Your task to perform on an android device: open a new tab in the chrome app Image 0: 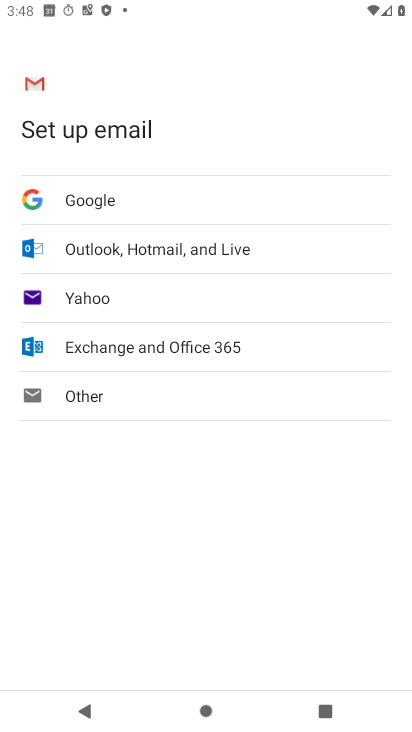
Step 0: press home button
Your task to perform on an android device: open a new tab in the chrome app Image 1: 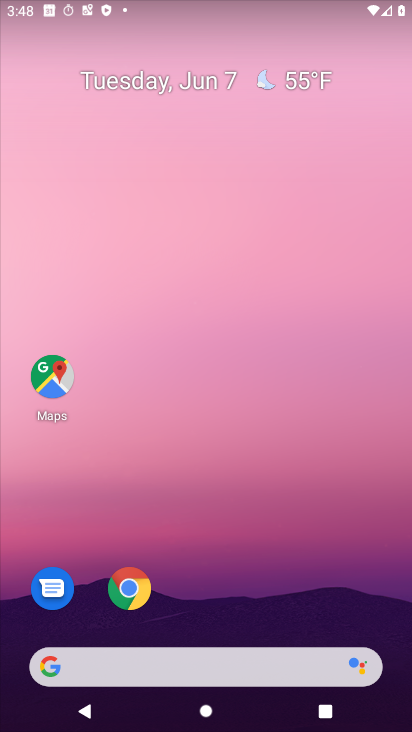
Step 1: click (131, 594)
Your task to perform on an android device: open a new tab in the chrome app Image 2: 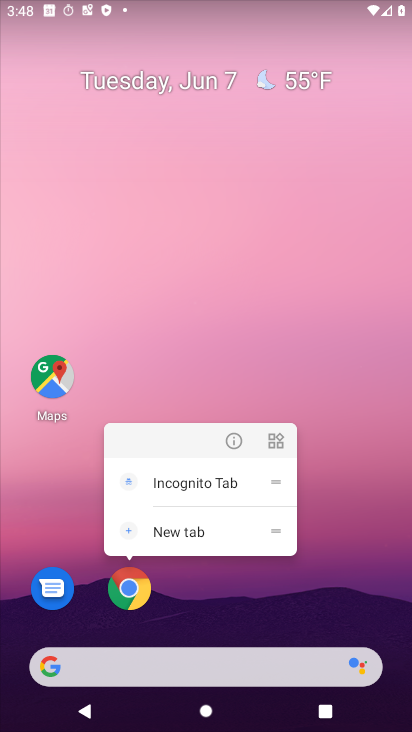
Step 2: click (132, 592)
Your task to perform on an android device: open a new tab in the chrome app Image 3: 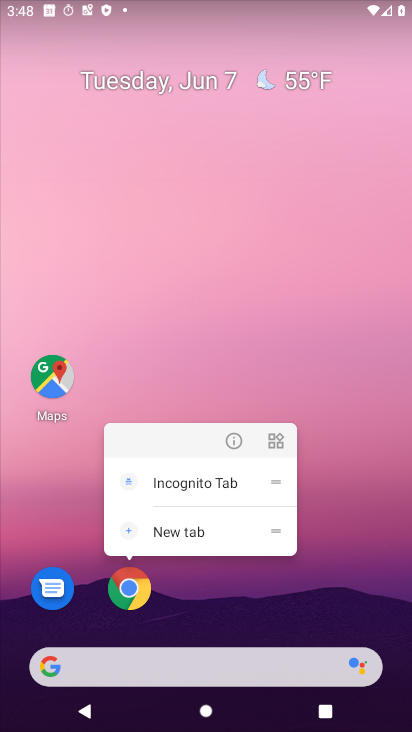
Step 3: click (133, 592)
Your task to perform on an android device: open a new tab in the chrome app Image 4: 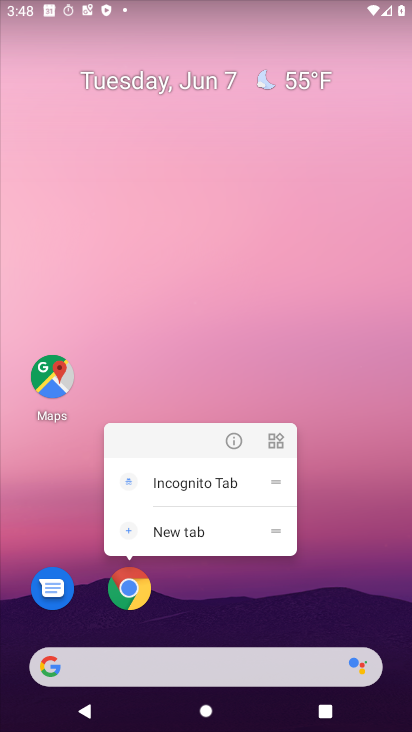
Step 4: click (273, 584)
Your task to perform on an android device: open a new tab in the chrome app Image 5: 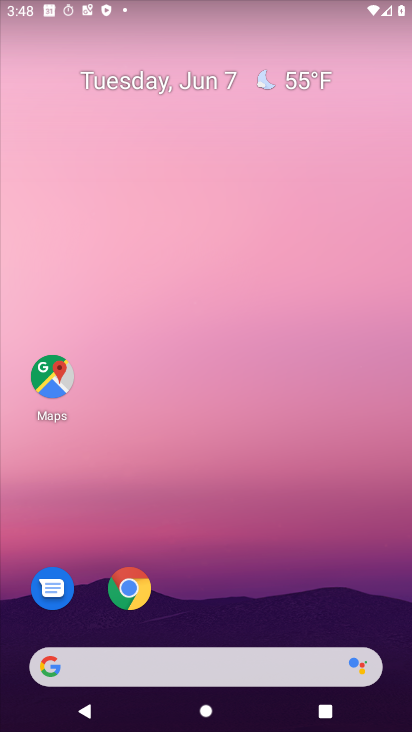
Step 5: drag from (276, 617) to (315, 6)
Your task to perform on an android device: open a new tab in the chrome app Image 6: 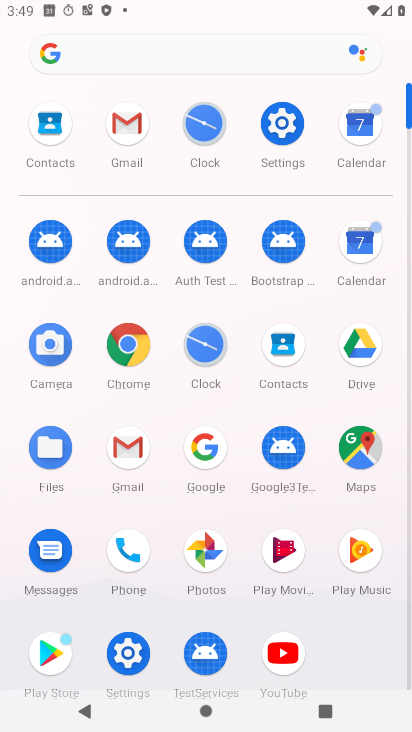
Step 6: click (131, 349)
Your task to perform on an android device: open a new tab in the chrome app Image 7: 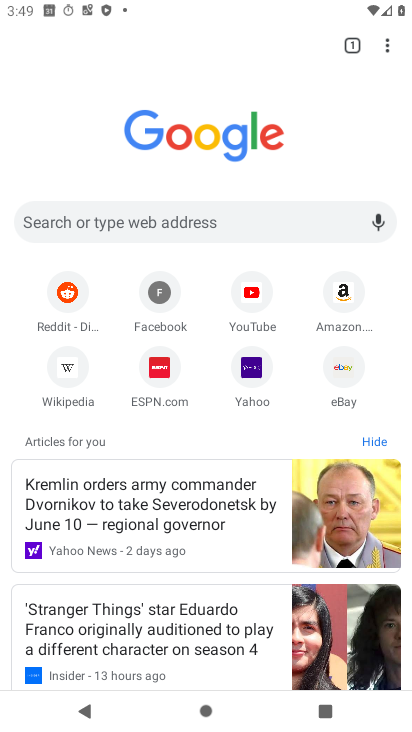
Step 7: click (355, 50)
Your task to perform on an android device: open a new tab in the chrome app Image 8: 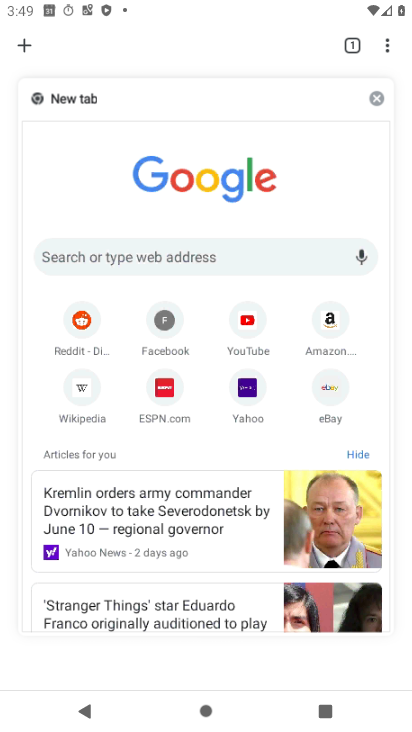
Step 8: click (28, 56)
Your task to perform on an android device: open a new tab in the chrome app Image 9: 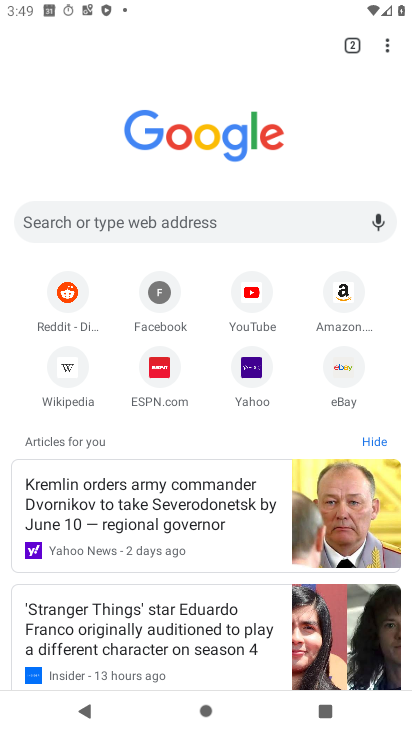
Step 9: task complete